Your task to perform on an android device: Go to display settings Image 0: 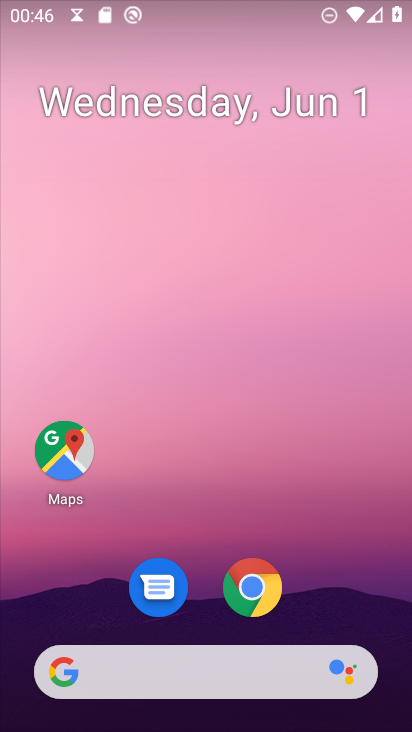
Step 0: drag from (349, 582) to (338, 50)
Your task to perform on an android device: Go to display settings Image 1: 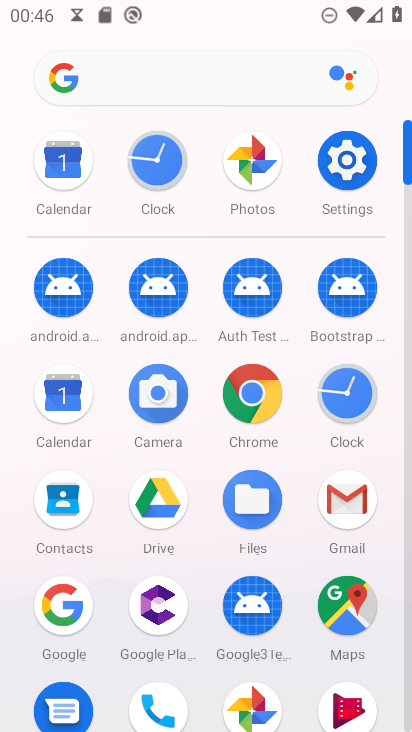
Step 1: click (344, 163)
Your task to perform on an android device: Go to display settings Image 2: 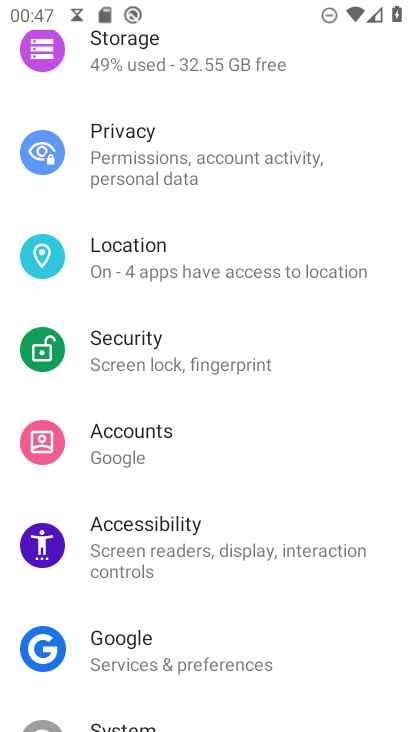
Step 2: drag from (212, 250) to (208, 515)
Your task to perform on an android device: Go to display settings Image 3: 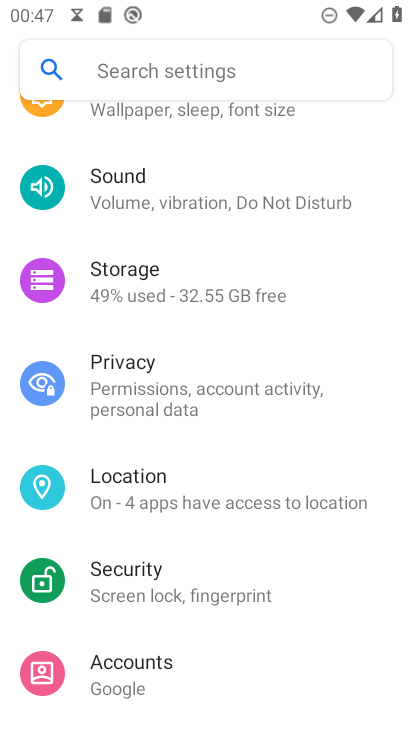
Step 3: drag from (208, 192) to (226, 410)
Your task to perform on an android device: Go to display settings Image 4: 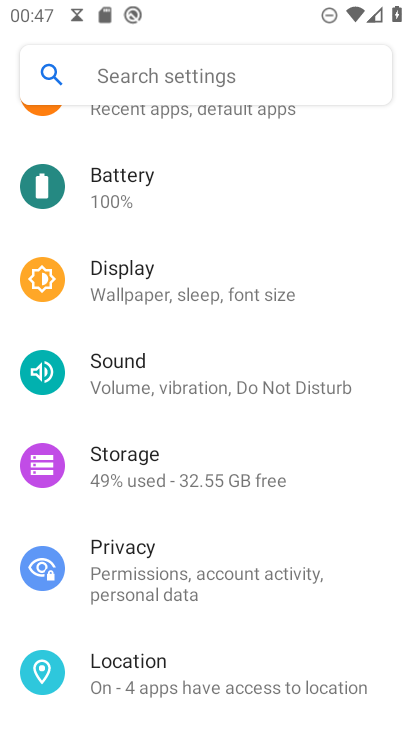
Step 4: click (128, 277)
Your task to perform on an android device: Go to display settings Image 5: 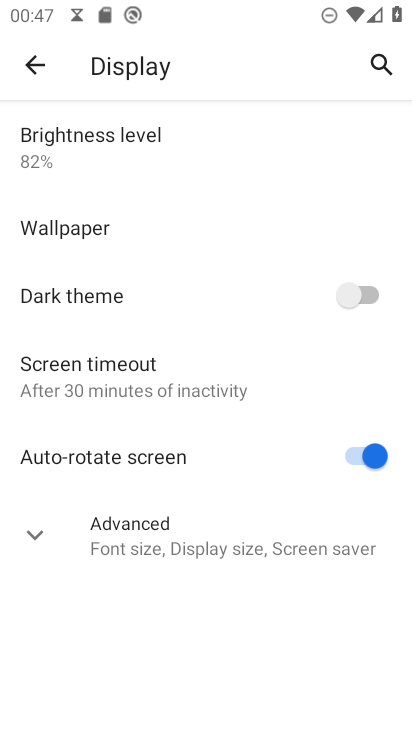
Step 5: task complete